Your task to perform on an android device: turn on improve location accuracy Image 0: 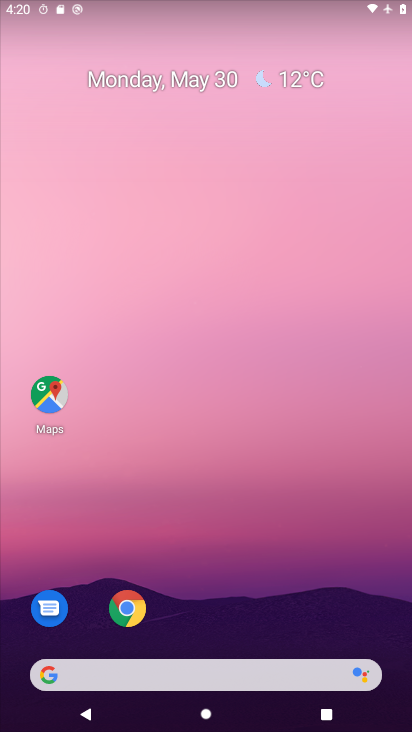
Step 0: drag from (279, 149) to (238, 3)
Your task to perform on an android device: turn on improve location accuracy Image 1: 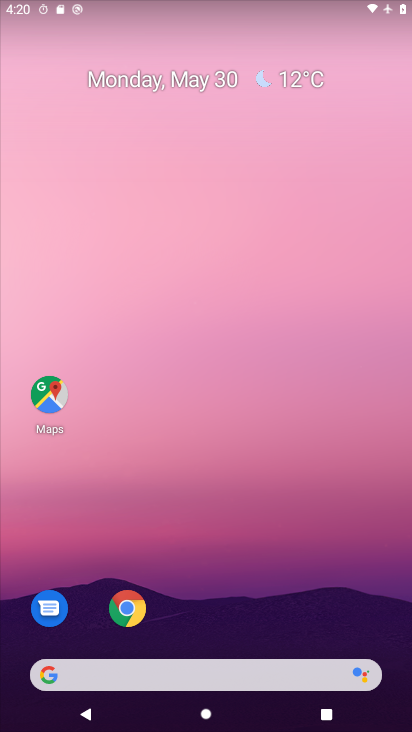
Step 1: drag from (294, 435) to (274, 29)
Your task to perform on an android device: turn on improve location accuracy Image 2: 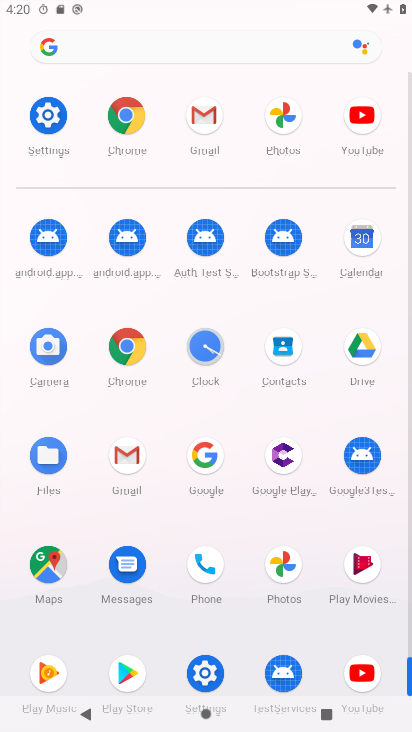
Step 2: click (38, 116)
Your task to perform on an android device: turn on improve location accuracy Image 3: 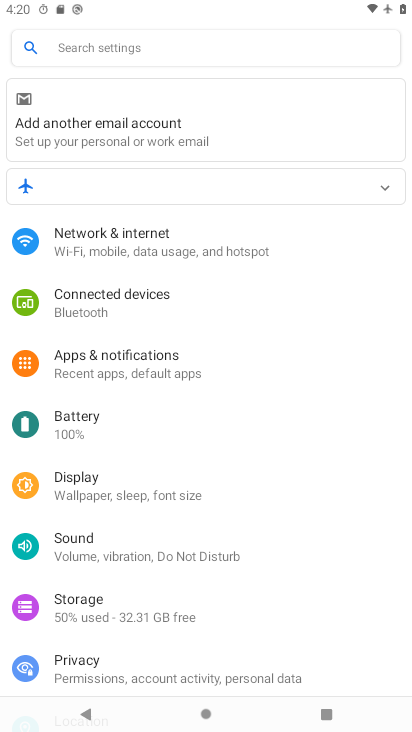
Step 3: drag from (178, 602) to (160, 259)
Your task to perform on an android device: turn on improve location accuracy Image 4: 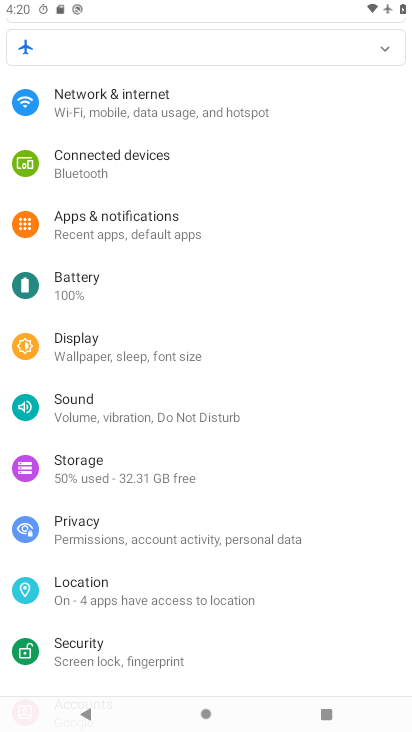
Step 4: click (132, 573)
Your task to perform on an android device: turn on improve location accuracy Image 5: 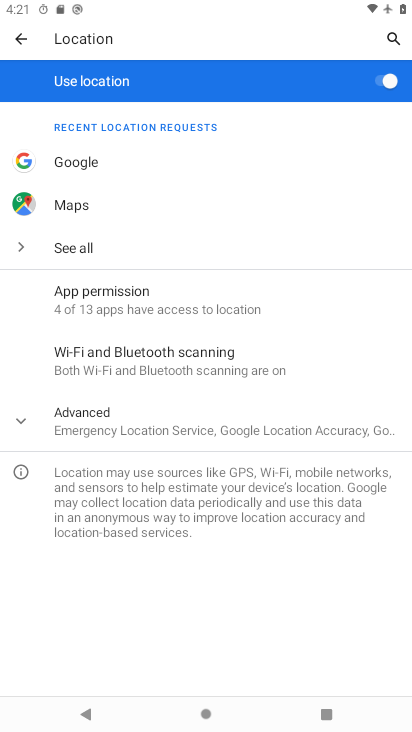
Step 5: click (197, 416)
Your task to perform on an android device: turn on improve location accuracy Image 6: 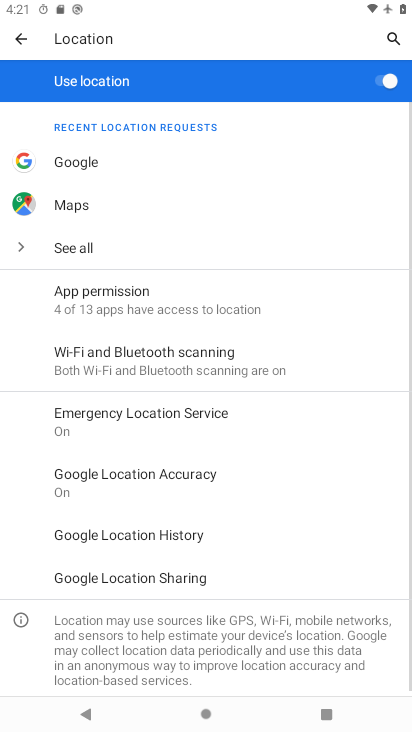
Step 6: click (198, 476)
Your task to perform on an android device: turn on improve location accuracy Image 7: 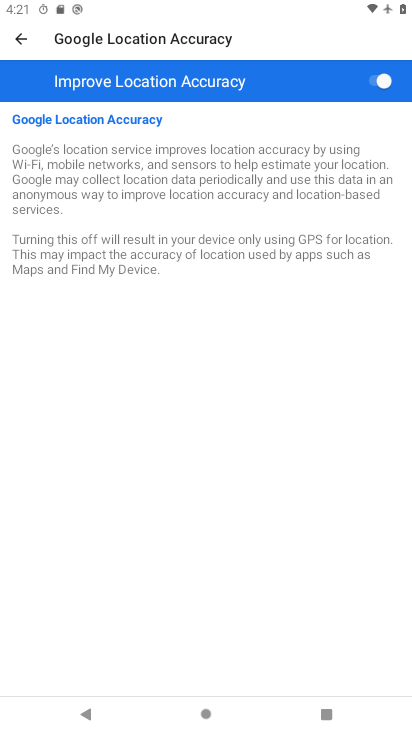
Step 7: task complete